Your task to perform on an android device: search for starred emails in the gmail app Image 0: 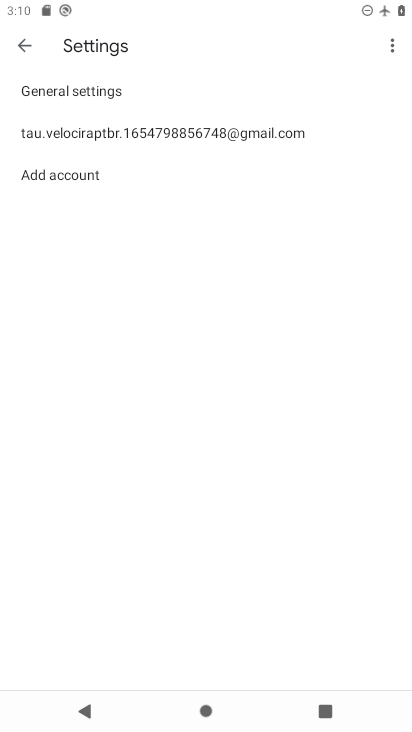
Step 0: press home button
Your task to perform on an android device: search for starred emails in the gmail app Image 1: 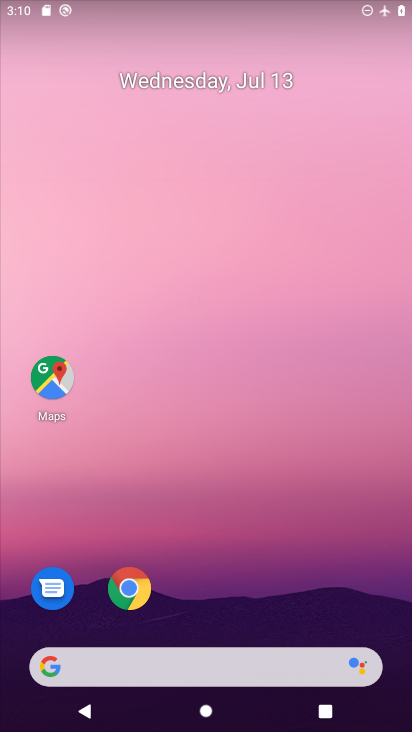
Step 1: drag from (199, 618) to (270, 2)
Your task to perform on an android device: search for starred emails in the gmail app Image 2: 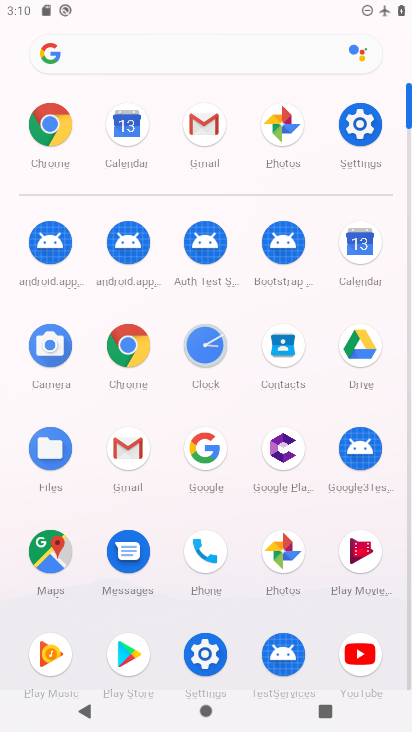
Step 2: click (131, 449)
Your task to perform on an android device: search for starred emails in the gmail app Image 3: 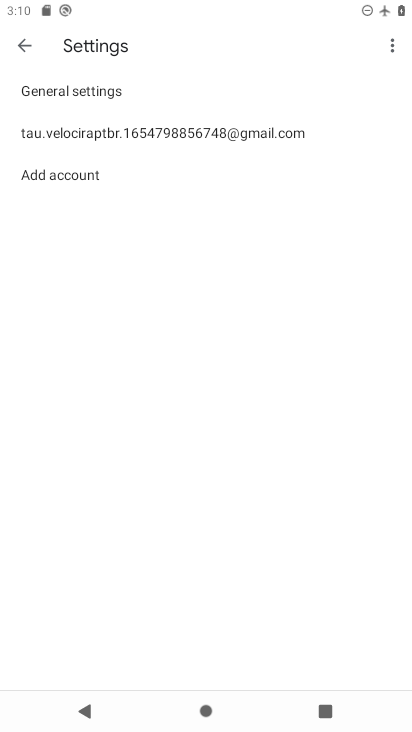
Step 3: click (19, 44)
Your task to perform on an android device: search for starred emails in the gmail app Image 4: 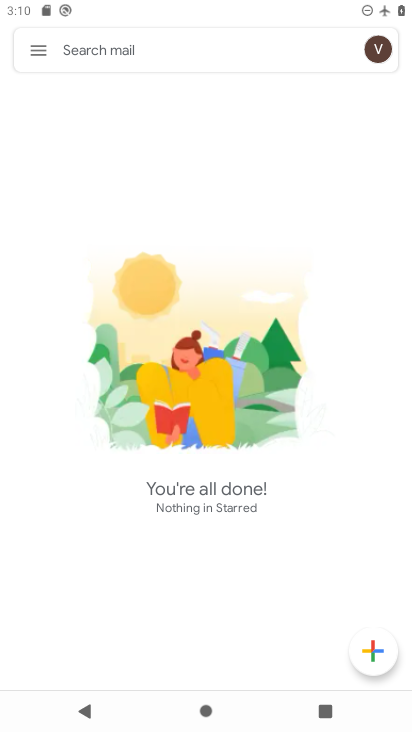
Step 4: click (44, 42)
Your task to perform on an android device: search for starred emails in the gmail app Image 5: 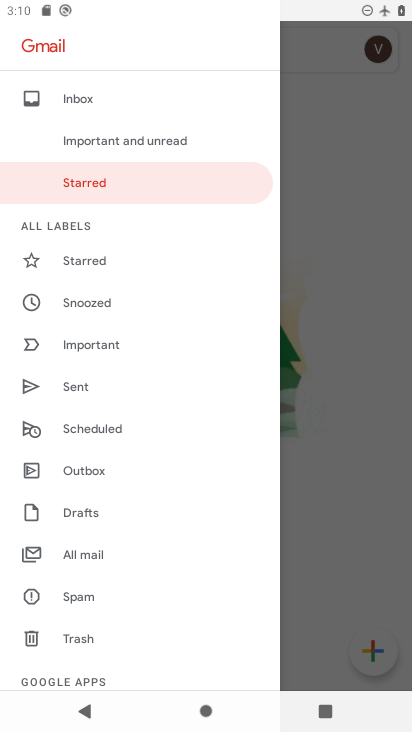
Step 5: click (122, 172)
Your task to perform on an android device: search for starred emails in the gmail app Image 6: 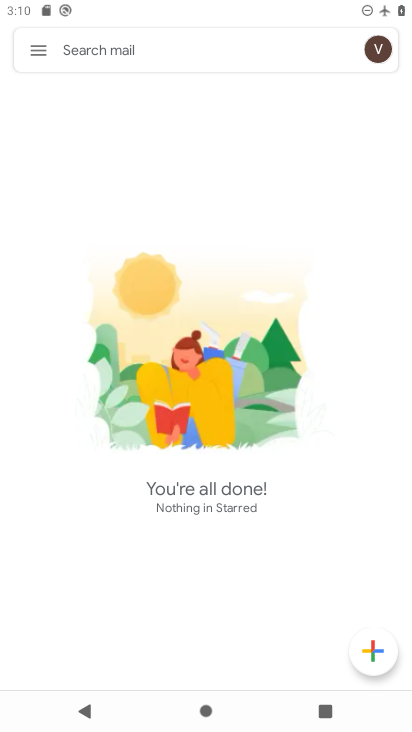
Step 6: task complete